Your task to perform on an android device: change the clock display to digital Image 0: 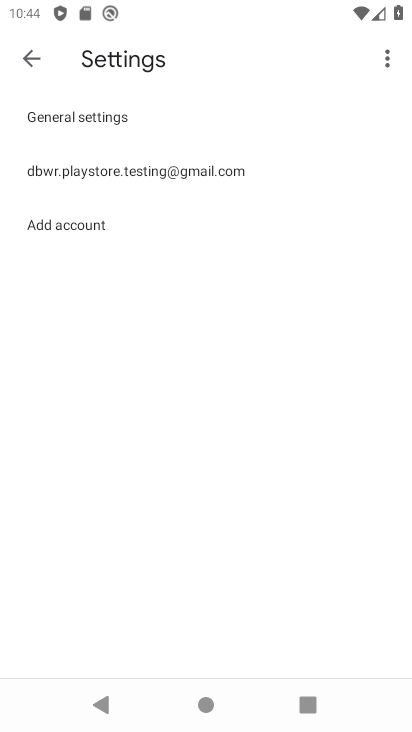
Step 0: press home button
Your task to perform on an android device: change the clock display to digital Image 1: 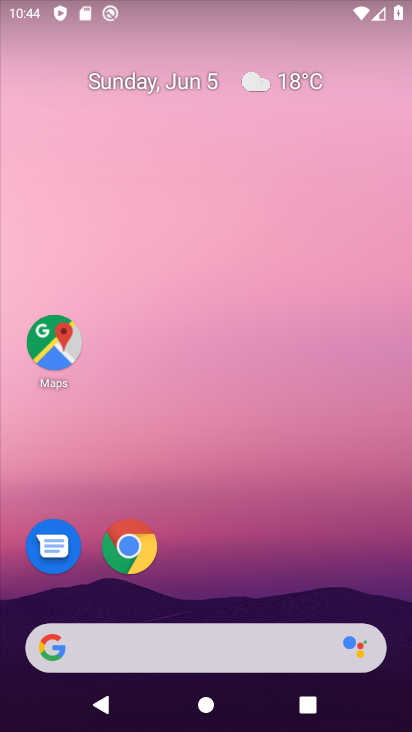
Step 1: drag from (155, 717) to (232, 97)
Your task to perform on an android device: change the clock display to digital Image 2: 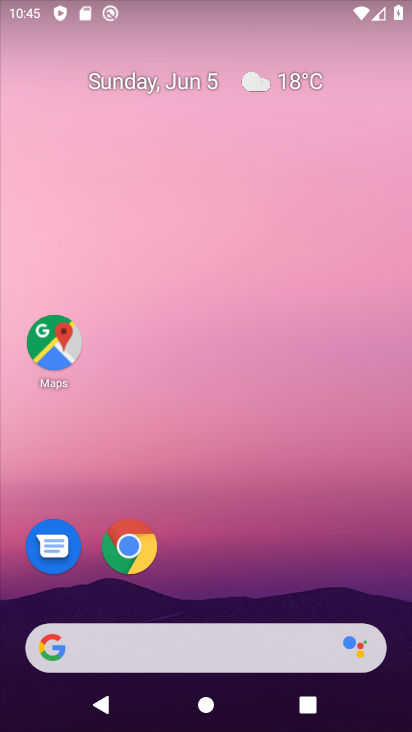
Step 2: drag from (157, 722) to (168, 97)
Your task to perform on an android device: change the clock display to digital Image 3: 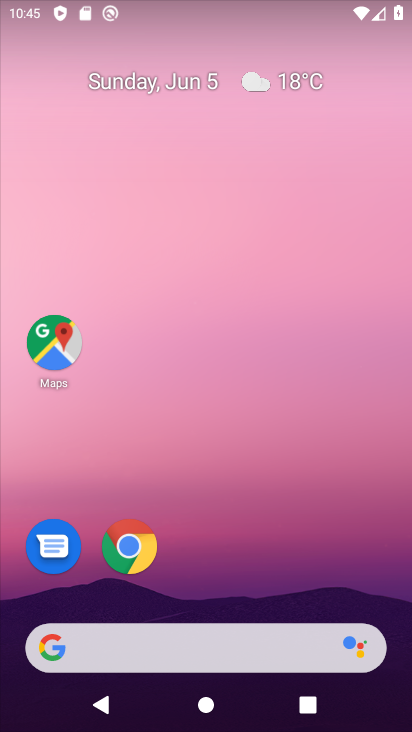
Step 3: drag from (155, 719) to (188, 51)
Your task to perform on an android device: change the clock display to digital Image 4: 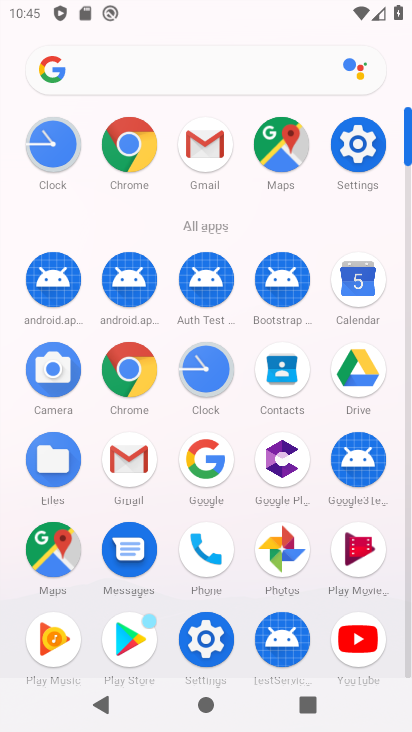
Step 4: click (205, 370)
Your task to perform on an android device: change the clock display to digital Image 5: 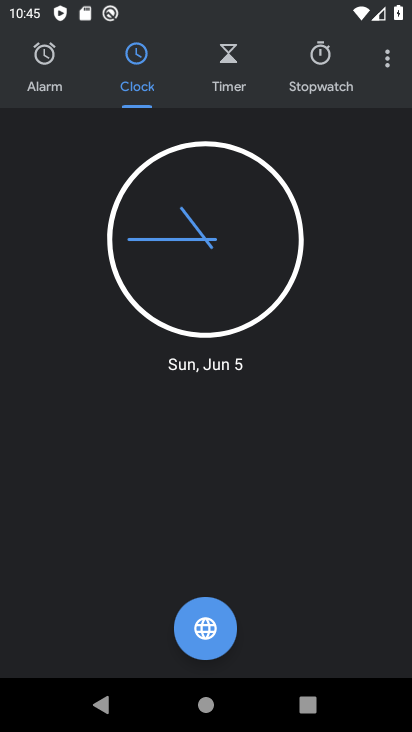
Step 5: click (389, 62)
Your task to perform on an android device: change the clock display to digital Image 6: 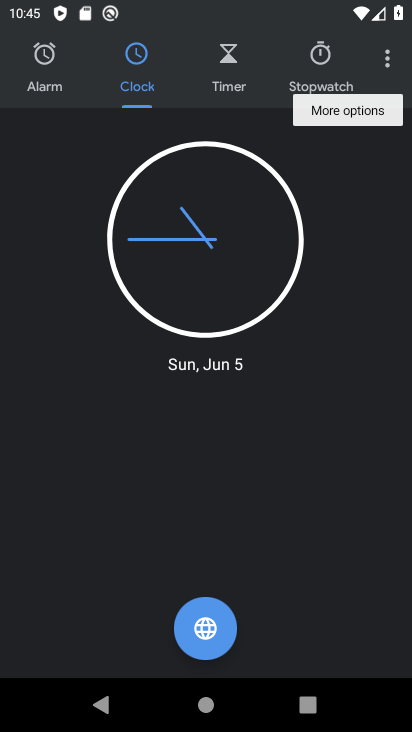
Step 6: click (373, 272)
Your task to perform on an android device: change the clock display to digital Image 7: 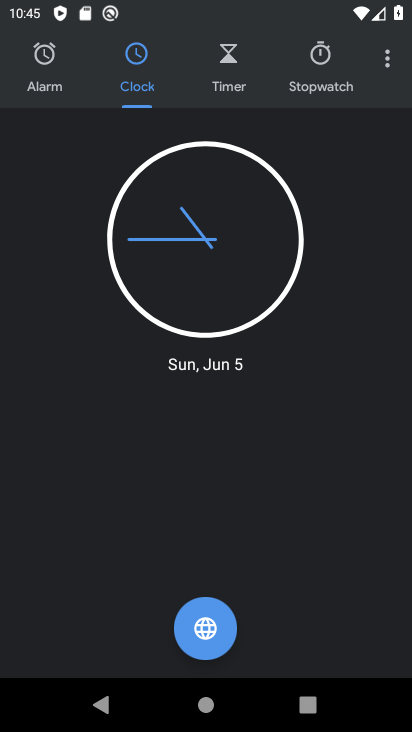
Step 7: click (384, 63)
Your task to perform on an android device: change the clock display to digital Image 8: 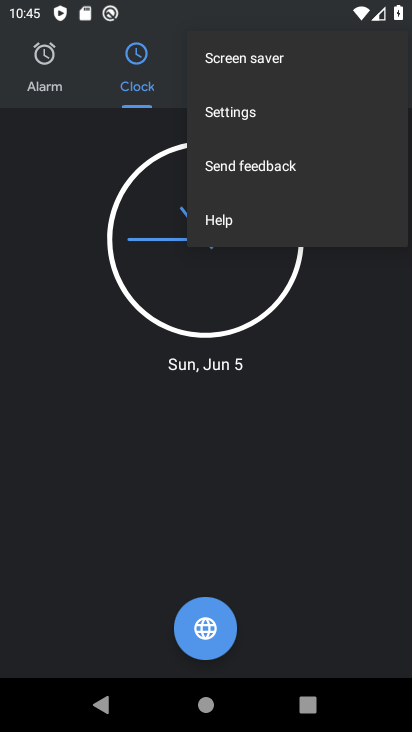
Step 8: click (322, 126)
Your task to perform on an android device: change the clock display to digital Image 9: 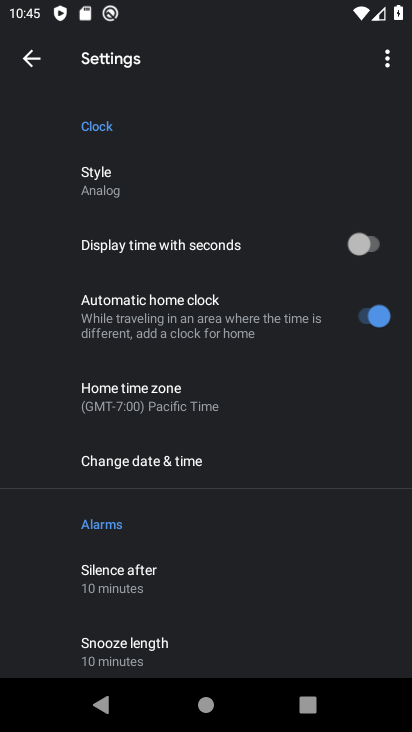
Step 9: click (152, 193)
Your task to perform on an android device: change the clock display to digital Image 10: 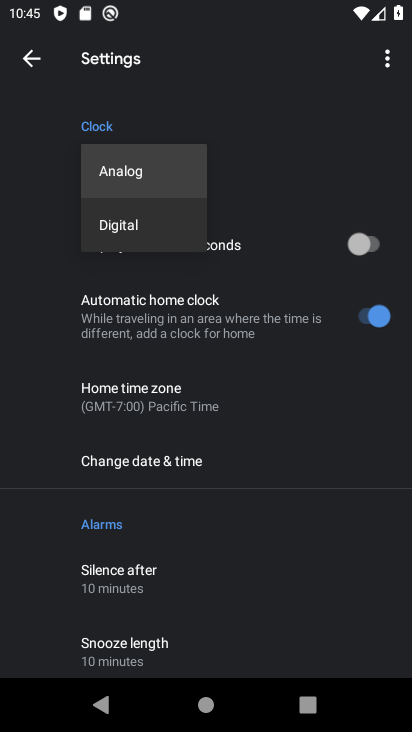
Step 10: click (153, 223)
Your task to perform on an android device: change the clock display to digital Image 11: 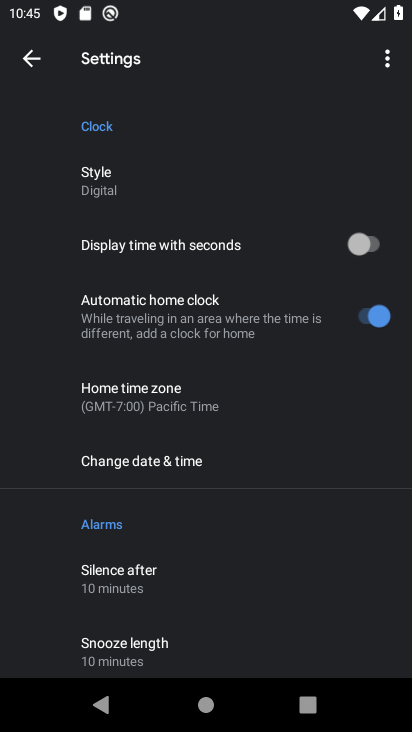
Step 11: task complete